Your task to perform on an android device: Turn off the flashlight Image 0: 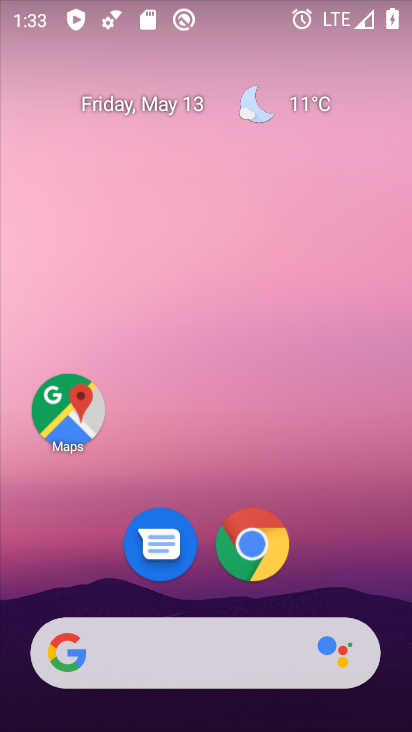
Step 0: drag from (196, 429) to (196, 132)
Your task to perform on an android device: Turn off the flashlight Image 1: 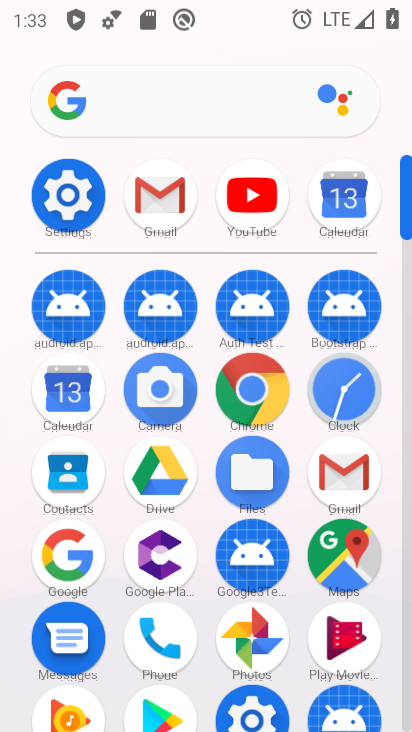
Step 1: click (71, 190)
Your task to perform on an android device: Turn off the flashlight Image 2: 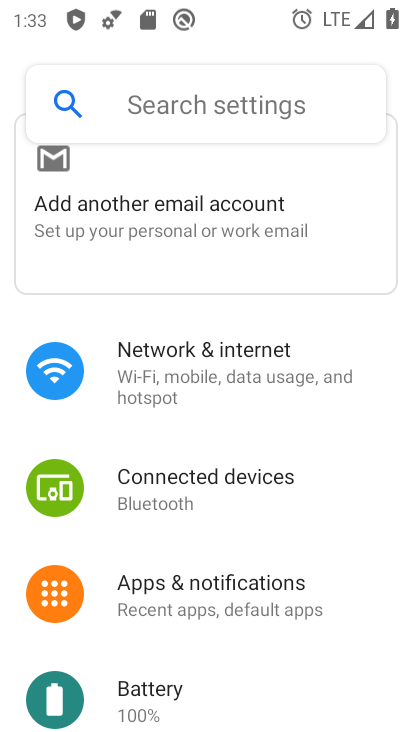
Step 2: drag from (213, 528) to (211, 226)
Your task to perform on an android device: Turn off the flashlight Image 3: 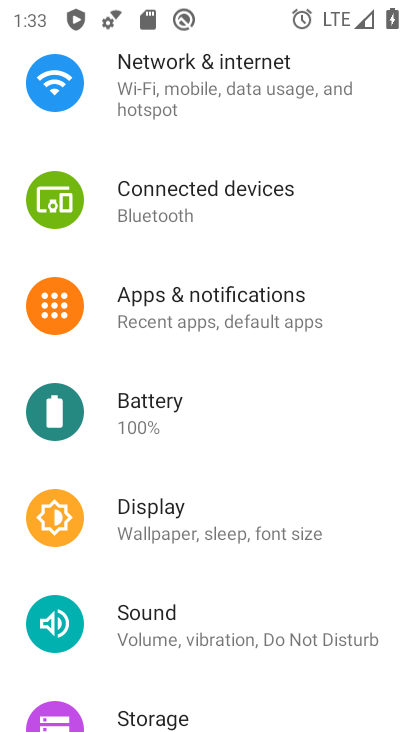
Step 3: drag from (241, 624) to (255, 356)
Your task to perform on an android device: Turn off the flashlight Image 4: 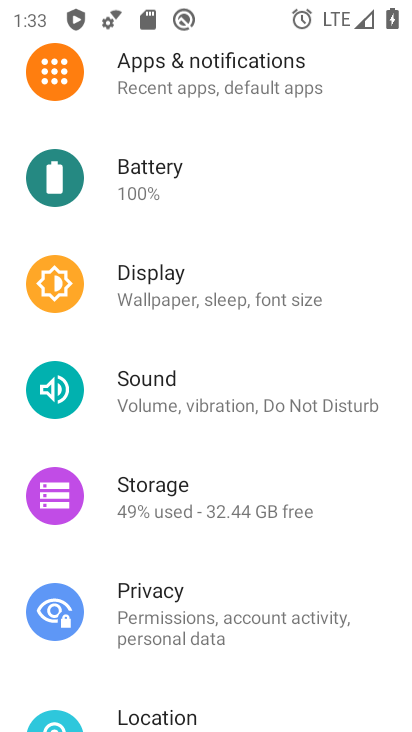
Step 4: click (197, 520)
Your task to perform on an android device: Turn off the flashlight Image 5: 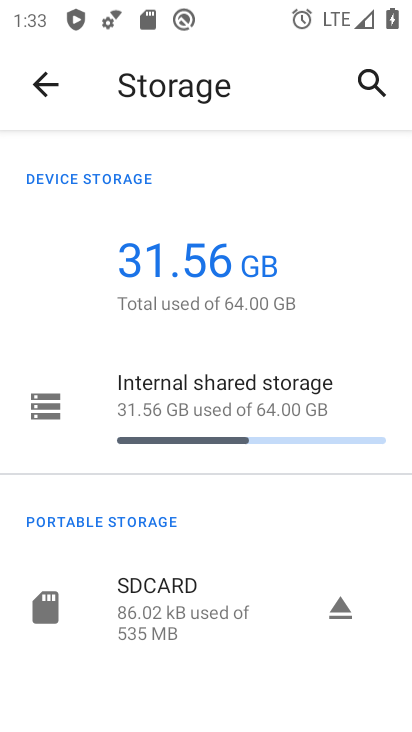
Step 5: task complete